Your task to perform on an android device: Open location settings Image 0: 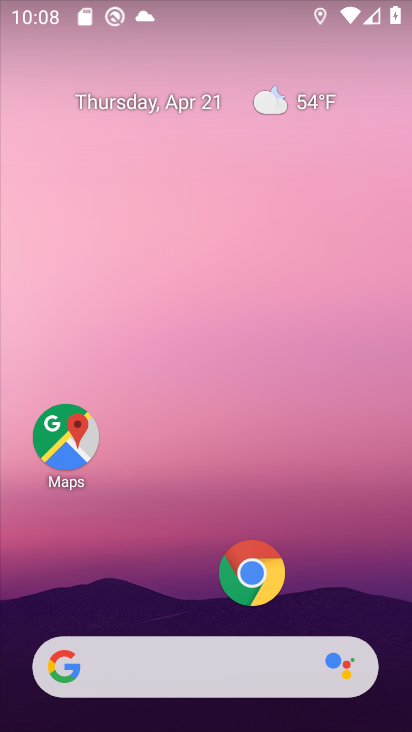
Step 0: drag from (197, 579) to (250, 67)
Your task to perform on an android device: Open location settings Image 1: 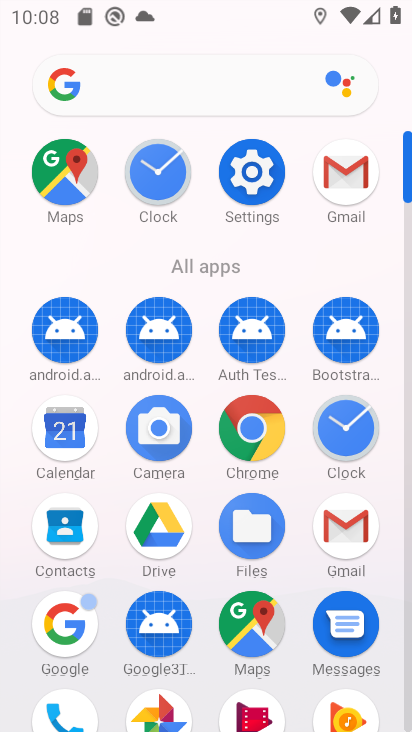
Step 1: click (262, 192)
Your task to perform on an android device: Open location settings Image 2: 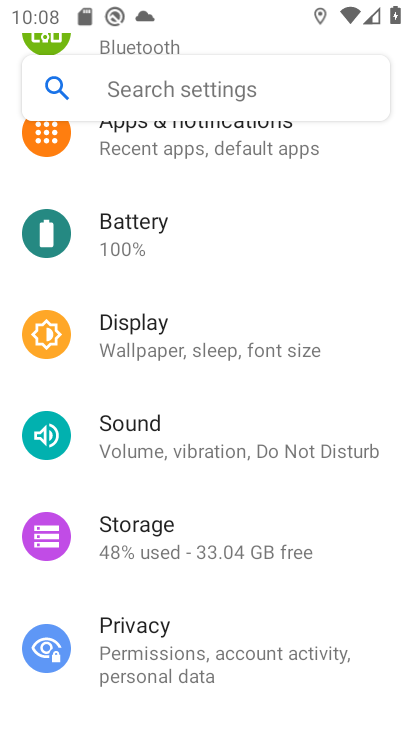
Step 2: drag from (229, 637) to (284, 306)
Your task to perform on an android device: Open location settings Image 3: 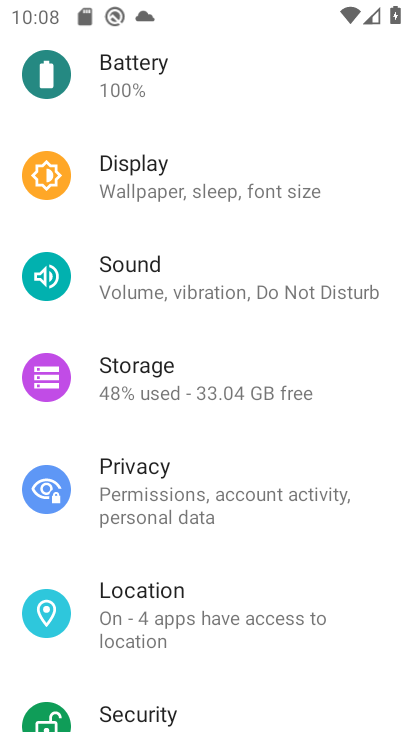
Step 3: click (224, 596)
Your task to perform on an android device: Open location settings Image 4: 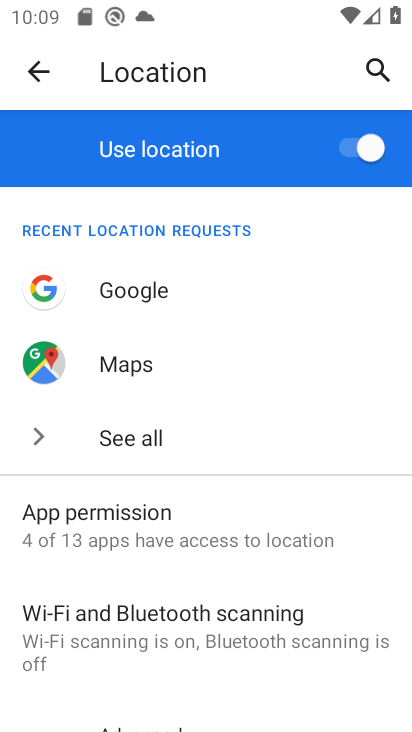
Step 4: drag from (250, 621) to (266, 298)
Your task to perform on an android device: Open location settings Image 5: 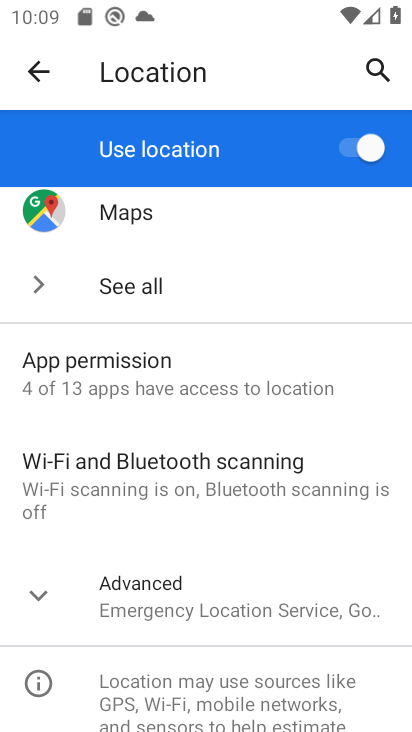
Step 5: click (203, 599)
Your task to perform on an android device: Open location settings Image 6: 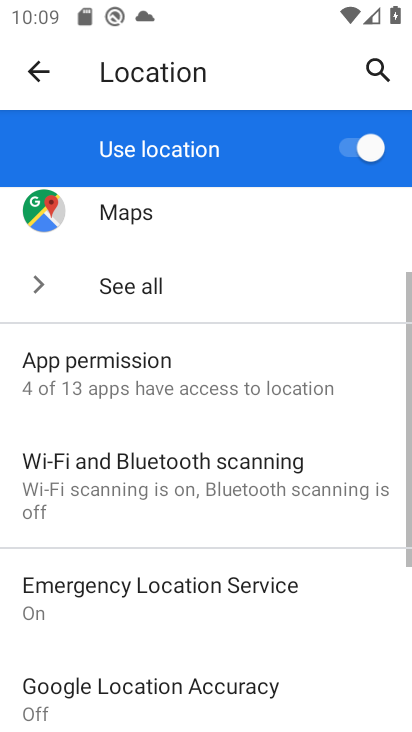
Step 6: task complete